Your task to perform on an android device: check out phone information Image 0: 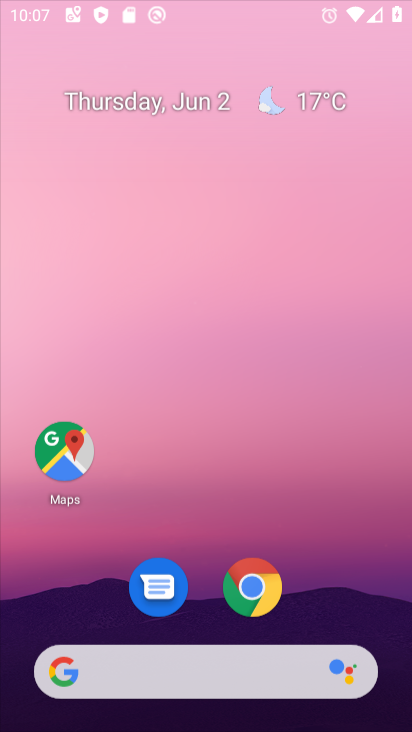
Step 0: press home button
Your task to perform on an android device: check out phone information Image 1: 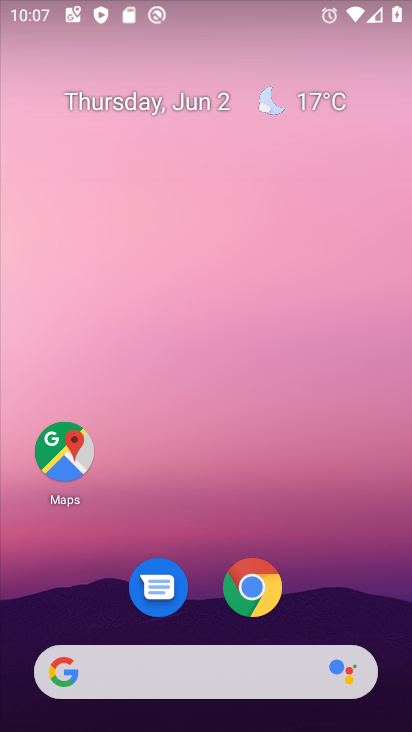
Step 1: drag from (208, 626) to (234, 27)
Your task to perform on an android device: check out phone information Image 2: 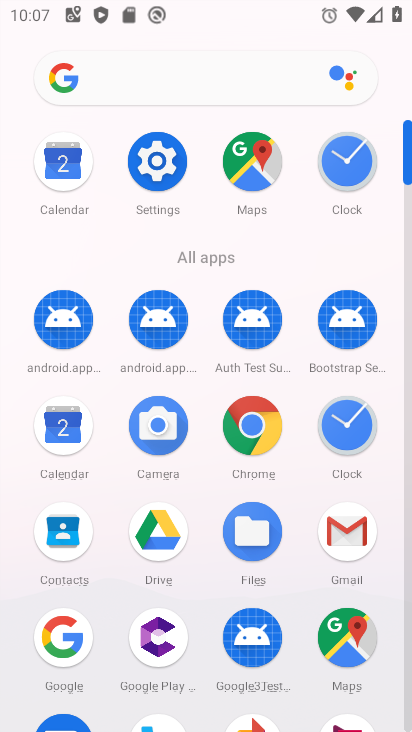
Step 2: click (154, 155)
Your task to perform on an android device: check out phone information Image 3: 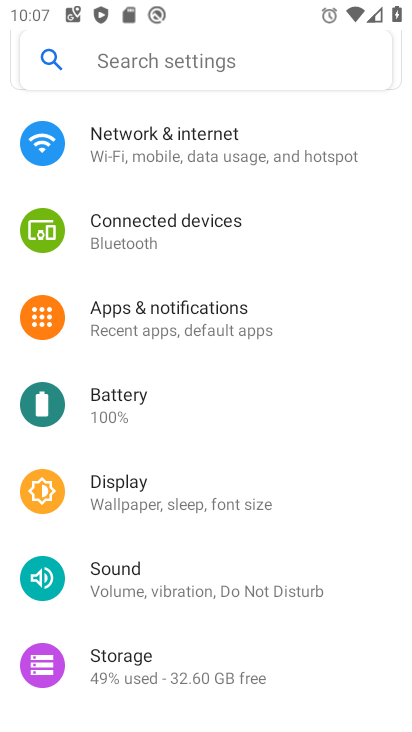
Step 3: drag from (219, 659) to (245, 94)
Your task to perform on an android device: check out phone information Image 4: 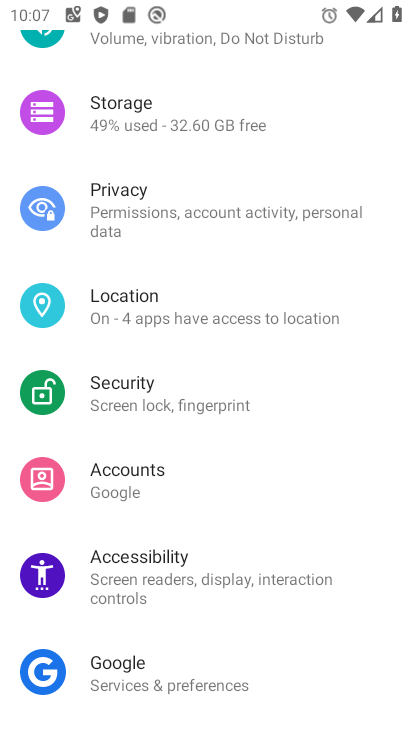
Step 4: drag from (226, 645) to (265, 100)
Your task to perform on an android device: check out phone information Image 5: 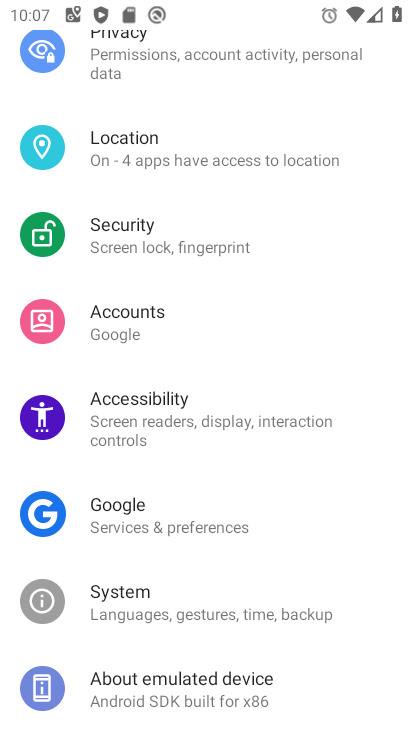
Step 5: click (289, 687)
Your task to perform on an android device: check out phone information Image 6: 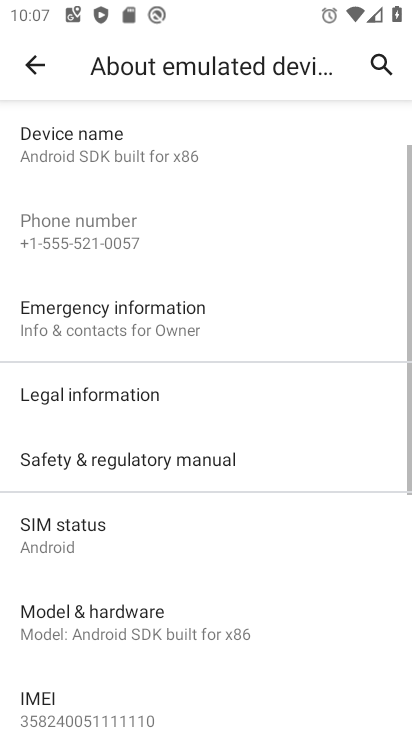
Step 6: task complete